Your task to perform on an android device: toggle sleep mode Image 0: 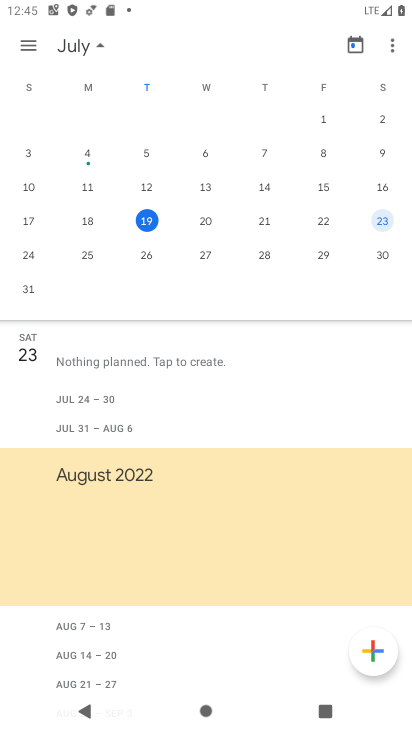
Step 0: press home button
Your task to perform on an android device: toggle sleep mode Image 1: 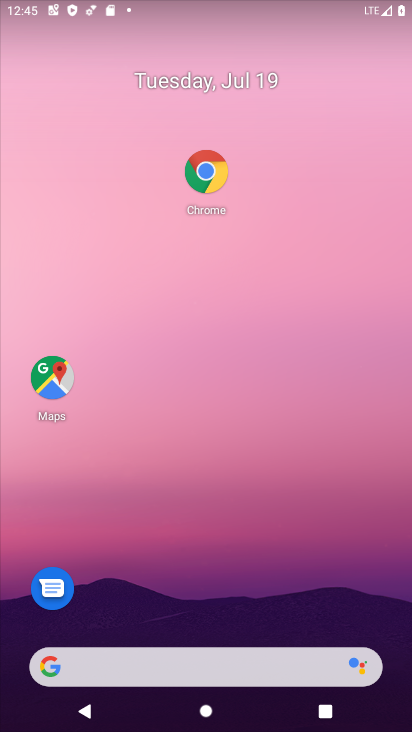
Step 1: drag from (191, 626) to (234, 13)
Your task to perform on an android device: toggle sleep mode Image 2: 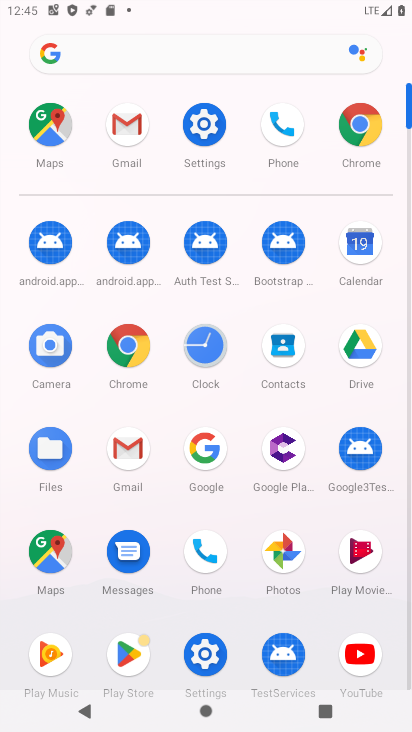
Step 2: click (214, 104)
Your task to perform on an android device: toggle sleep mode Image 3: 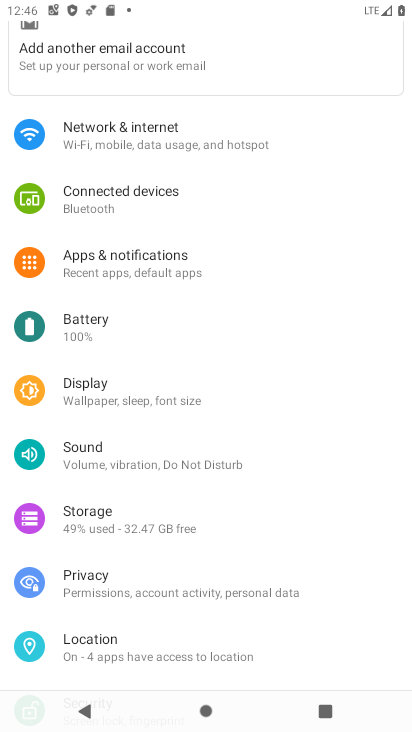
Step 3: task complete